Your task to perform on an android device: Open Google Chrome Image 0: 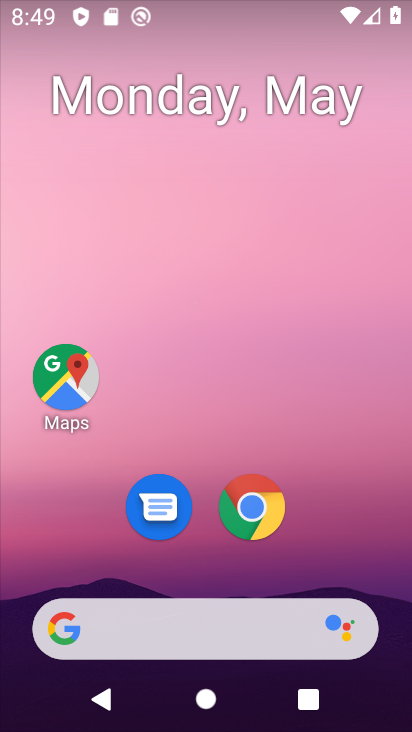
Step 0: click (265, 499)
Your task to perform on an android device: Open Google Chrome Image 1: 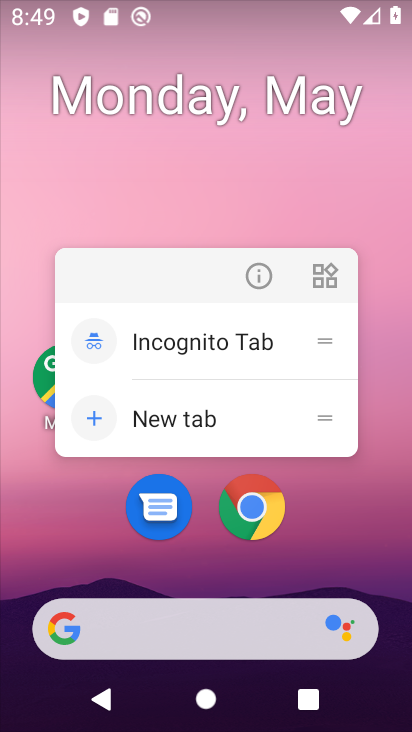
Step 1: click (264, 506)
Your task to perform on an android device: Open Google Chrome Image 2: 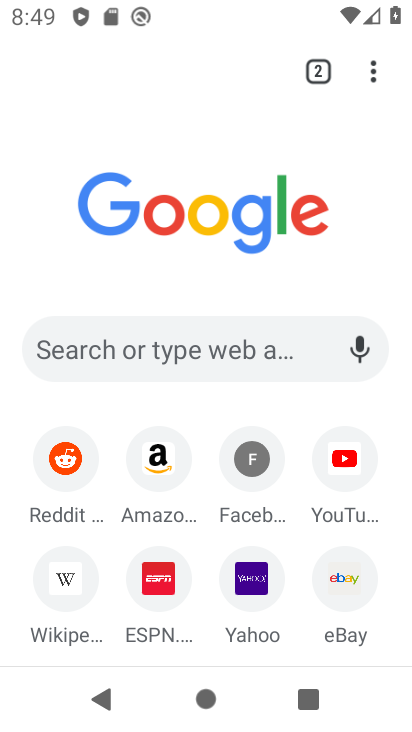
Step 2: task complete